Your task to perform on an android device: turn off sleep mode Image 0: 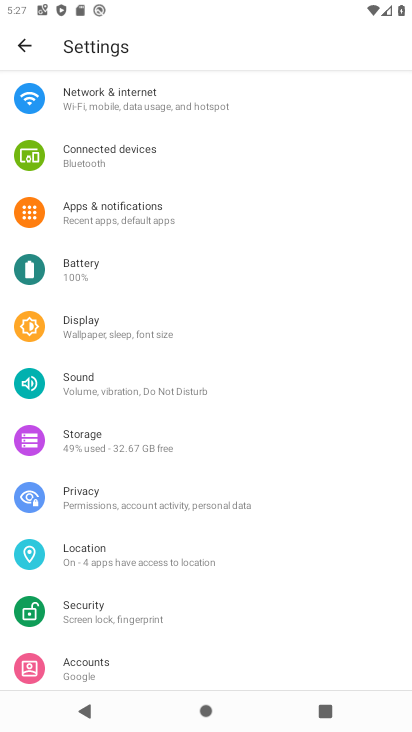
Step 0: click (26, 44)
Your task to perform on an android device: turn off sleep mode Image 1: 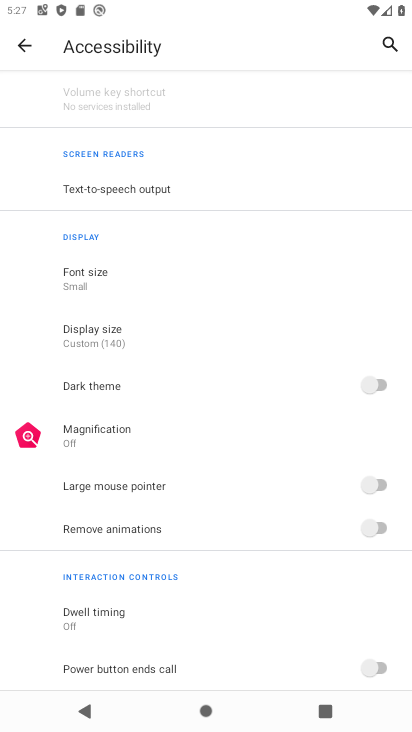
Step 1: click (27, 34)
Your task to perform on an android device: turn off sleep mode Image 2: 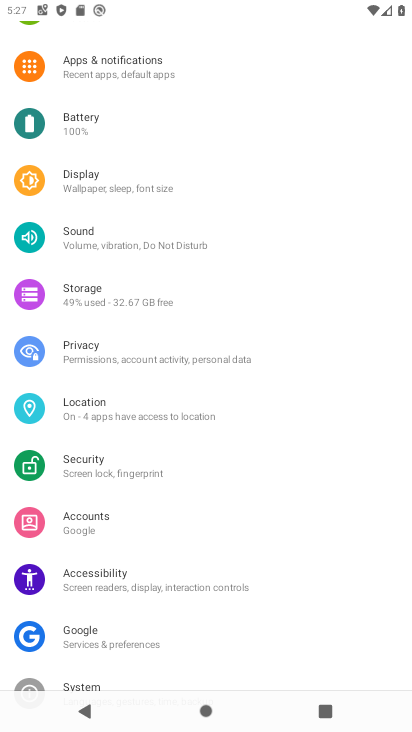
Step 2: drag from (139, 84) to (172, 701)
Your task to perform on an android device: turn off sleep mode Image 3: 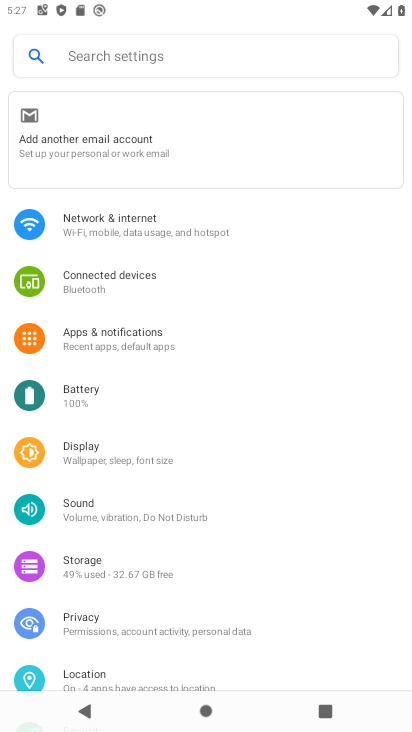
Step 3: click (145, 55)
Your task to perform on an android device: turn off sleep mode Image 4: 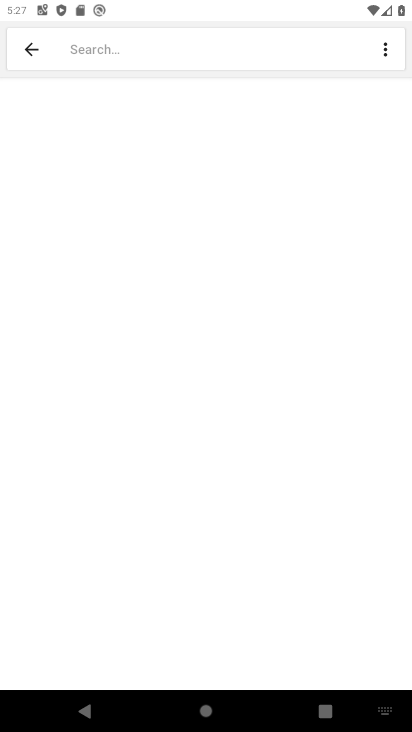
Step 4: type "sleep mode"
Your task to perform on an android device: turn off sleep mode Image 5: 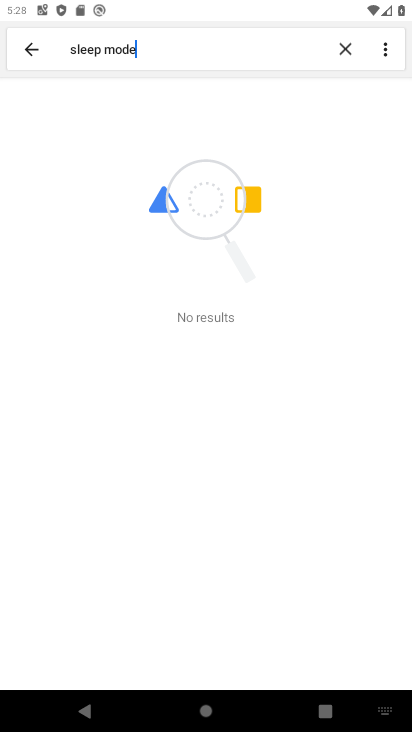
Step 5: task complete